Your task to perform on an android device: turn on improve location accuracy Image 0: 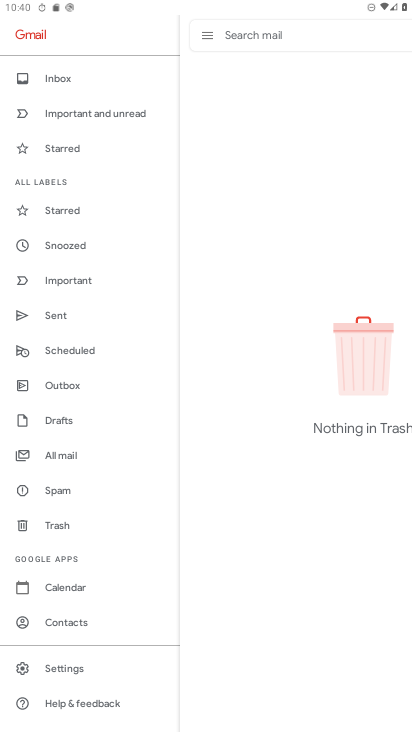
Step 0: press home button
Your task to perform on an android device: turn on improve location accuracy Image 1: 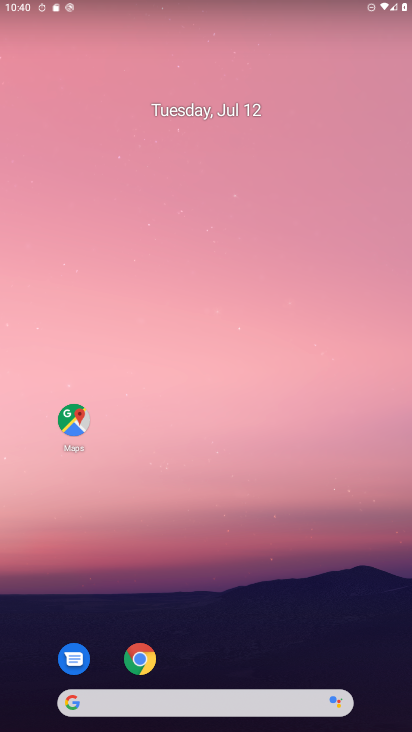
Step 1: drag from (230, 721) to (200, 173)
Your task to perform on an android device: turn on improve location accuracy Image 2: 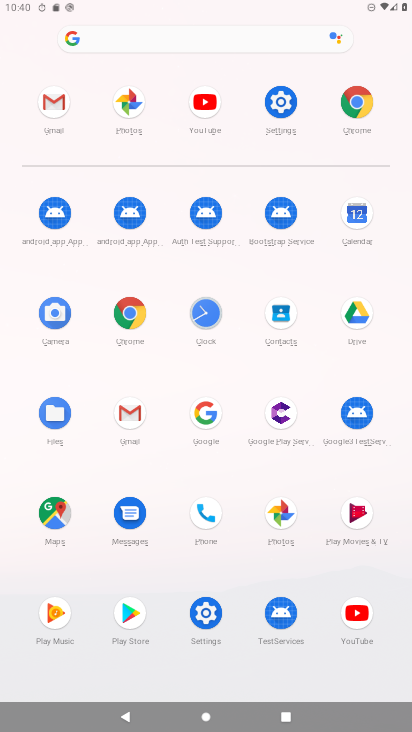
Step 2: click (281, 104)
Your task to perform on an android device: turn on improve location accuracy Image 3: 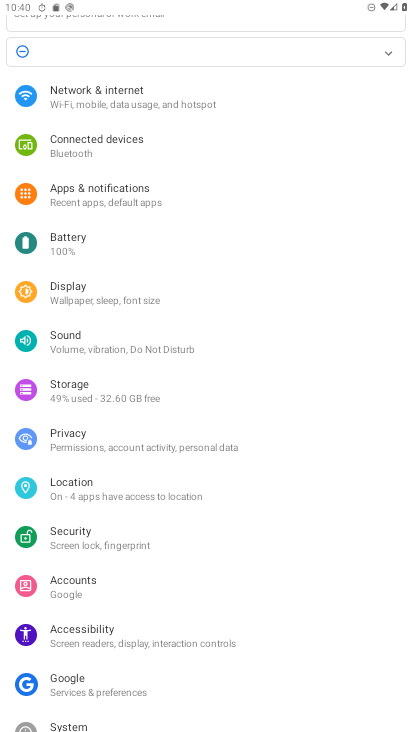
Step 3: click (71, 489)
Your task to perform on an android device: turn on improve location accuracy Image 4: 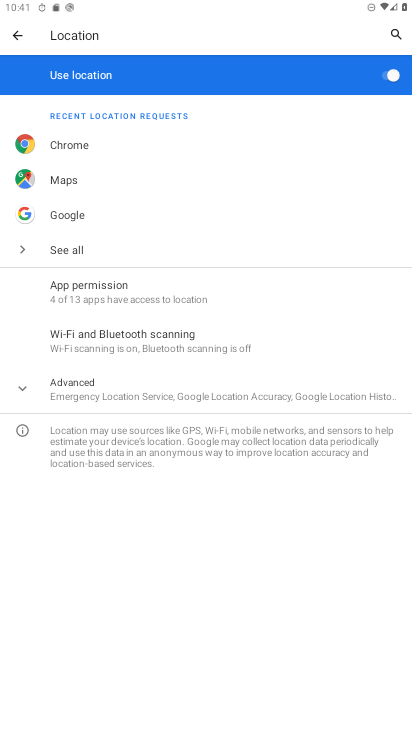
Step 4: click (68, 379)
Your task to perform on an android device: turn on improve location accuracy Image 5: 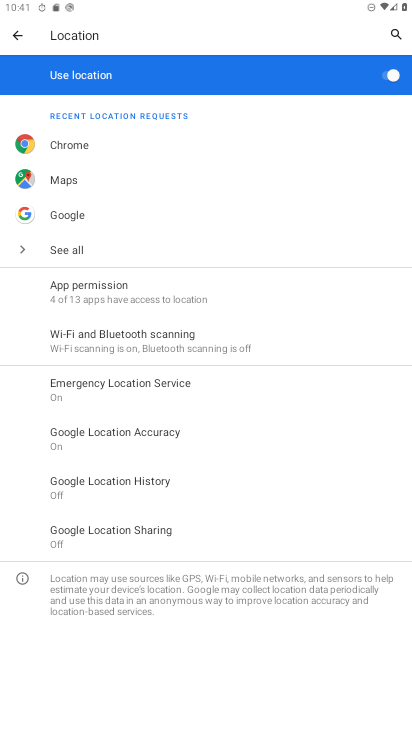
Step 5: click (111, 432)
Your task to perform on an android device: turn on improve location accuracy Image 6: 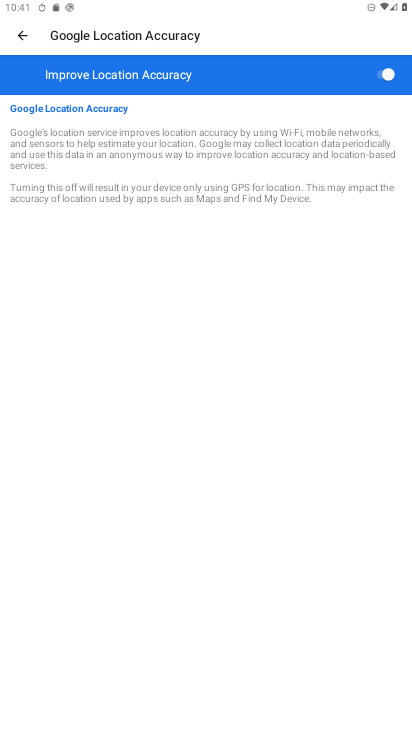
Step 6: task complete